Your task to perform on an android device: turn on improve location accuracy Image 0: 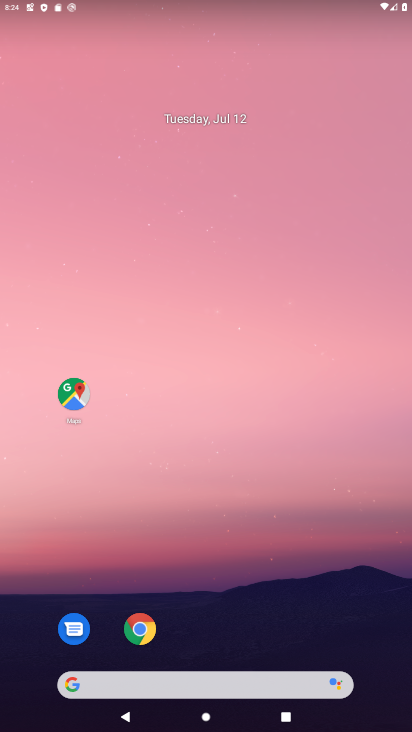
Step 0: drag from (278, 602) to (269, 277)
Your task to perform on an android device: turn on improve location accuracy Image 1: 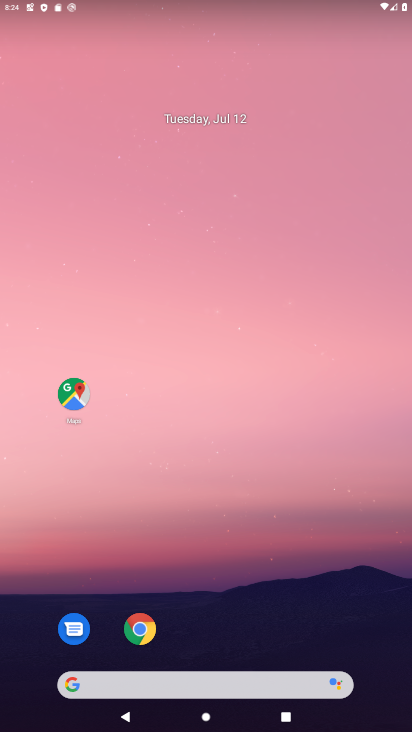
Step 1: drag from (215, 637) to (241, 194)
Your task to perform on an android device: turn on improve location accuracy Image 2: 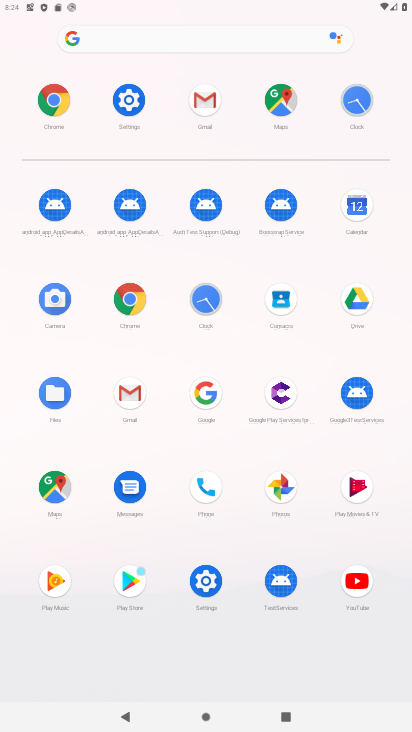
Step 2: click (135, 90)
Your task to perform on an android device: turn on improve location accuracy Image 3: 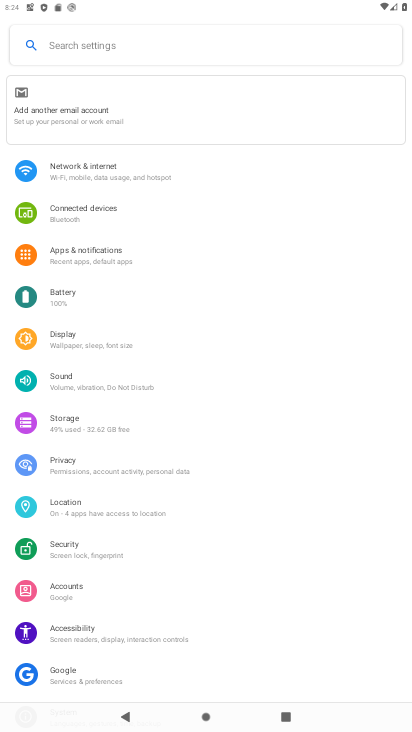
Step 3: click (93, 500)
Your task to perform on an android device: turn on improve location accuracy Image 4: 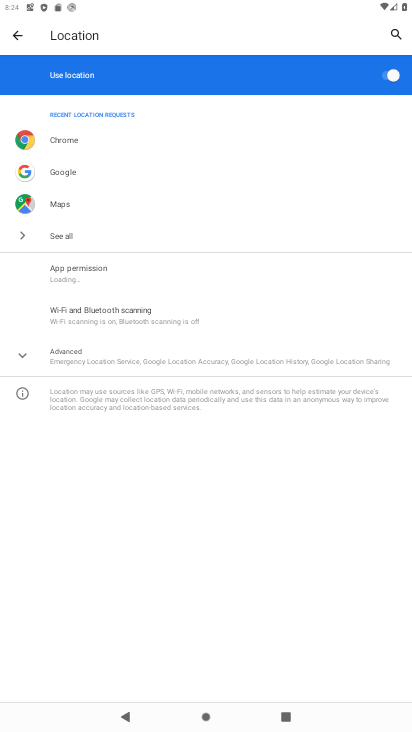
Step 4: click (122, 351)
Your task to perform on an android device: turn on improve location accuracy Image 5: 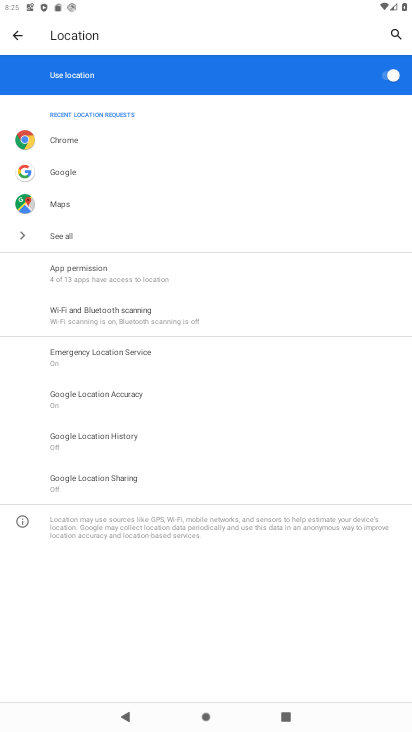
Step 5: click (133, 397)
Your task to perform on an android device: turn on improve location accuracy Image 6: 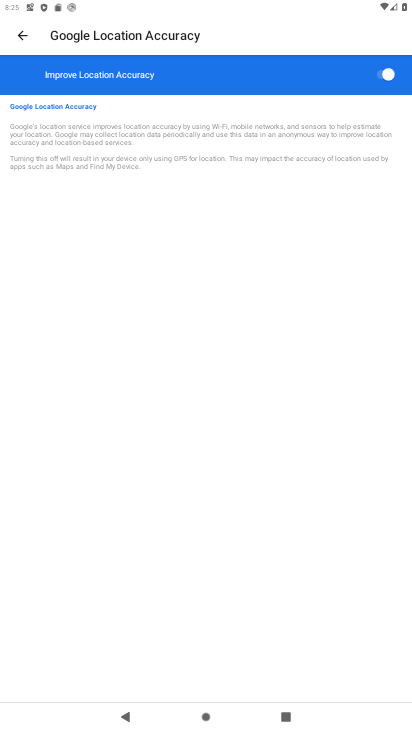
Step 6: task complete